Your task to perform on an android device: turn on translation in the chrome app Image 0: 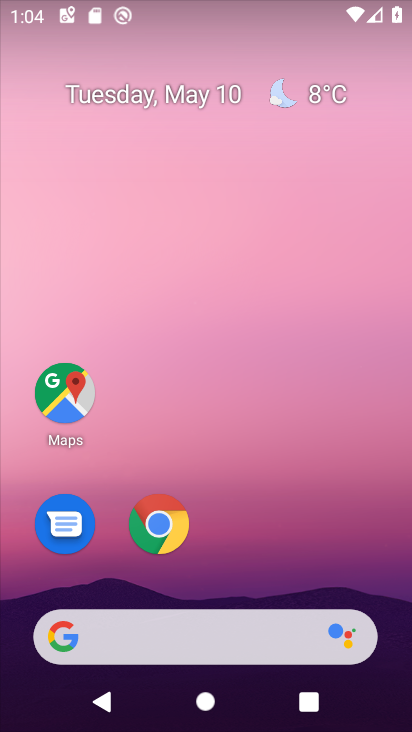
Step 0: click (167, 524)
Your task to perform on an android device: turn on translation in the chrome app Image 1: 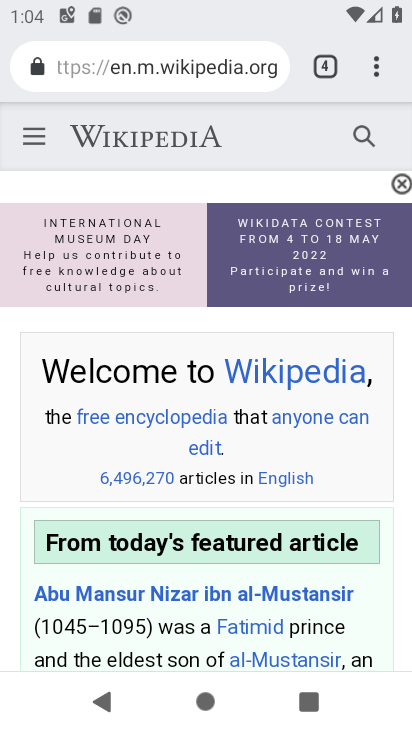
Step 1: click (377, 74)
Your task to perform on an android device: turn on translation in the chrome app Image 2: 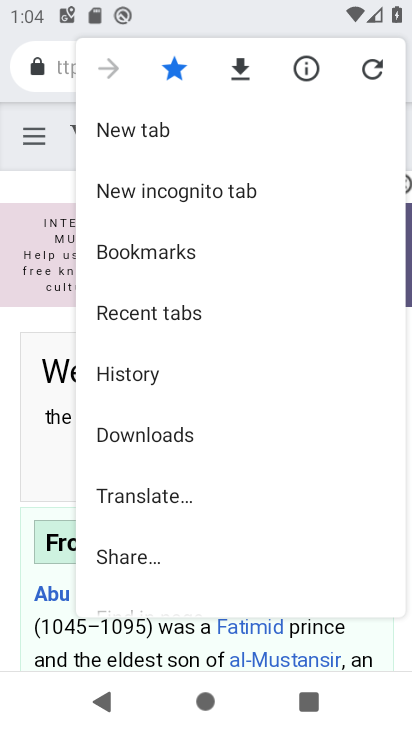
Step 2: drag from (336, 141) to (283, 11)
Your task to perform on an android device: turn on translation in the chrome app Image 3: 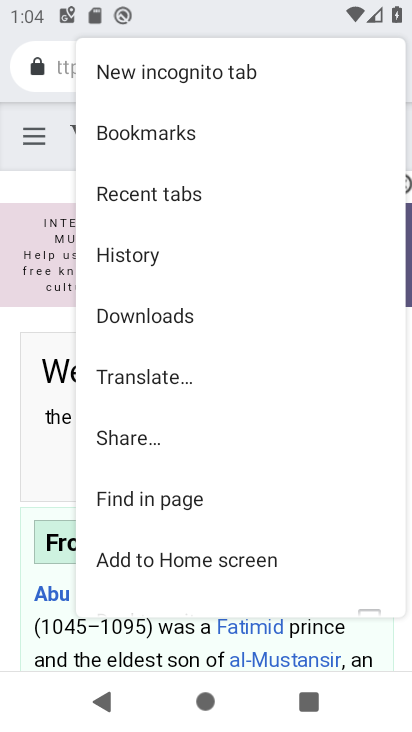
Step 3: drag from (298, 511) to (220, 322)
Your task to perform on an android device: turn on translation in the chrome app Image 4: 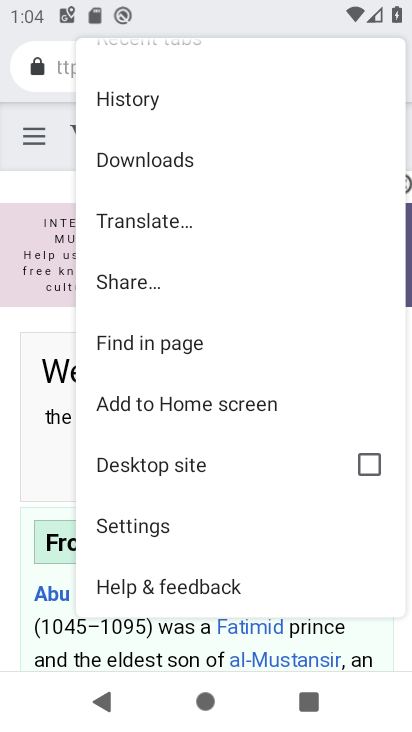
Step 4: click (219, 517)
Your task to perform on an android device: turn on translation in the chrome app Image 5: 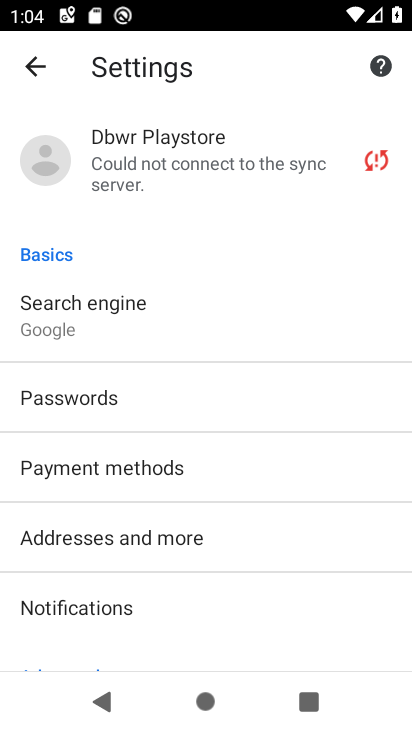
Step 5: drag from (219, 517) to (72, 196)
Your task to perform on an android device: turn on translation in the chrome app Image 6: 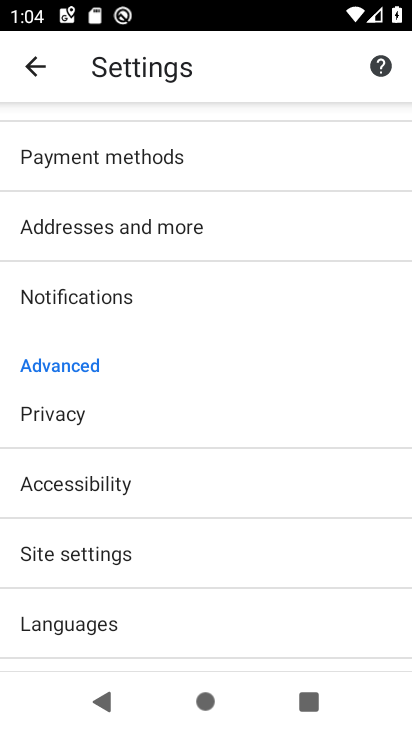
Step 6: click (98, 424)
Your task to perform on an android device: turn on translation in the chrome app Image 7: 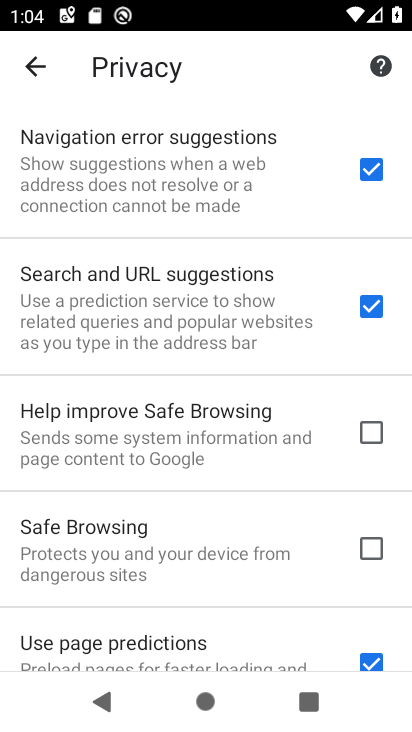
Step 7: click (34, 58)
Your task to perform on an android device: turn on translation in the chrome app Image 8: 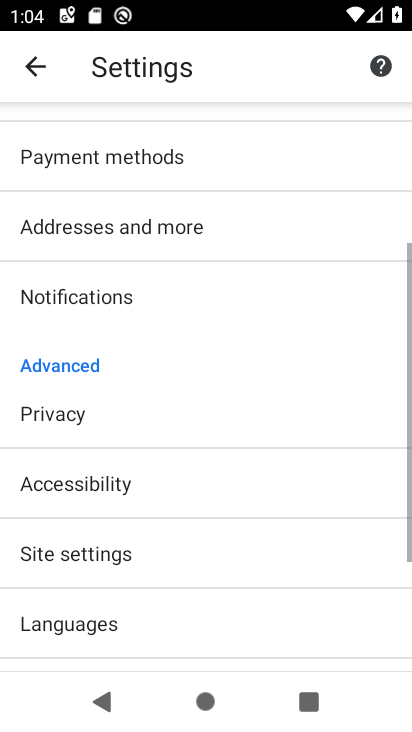
Step 8: click (193, 621)
Your task to perform on an android device: turn on translation in the chrome app Image 9: 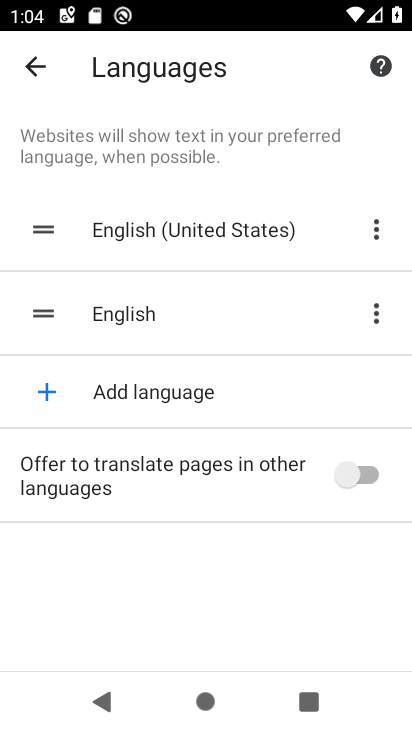
Step 9: click (358, 467)
Your task to perform on an android device: turn on translation in the chrome app Image 10: 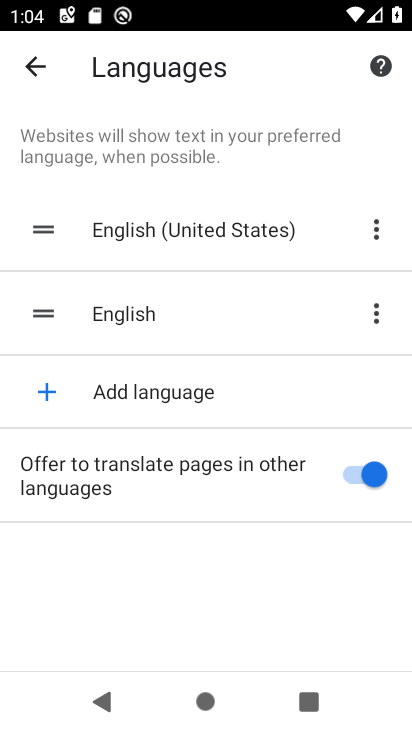
Step 10: task complete